Your task to perform on an android device: Open ESPN.com Image 0: 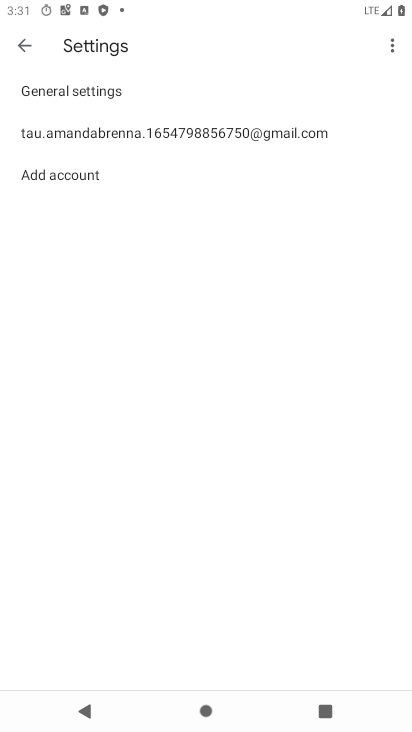
Step 0: press home button
Your task to perform on an android device: Open ESPN.com Image 1: 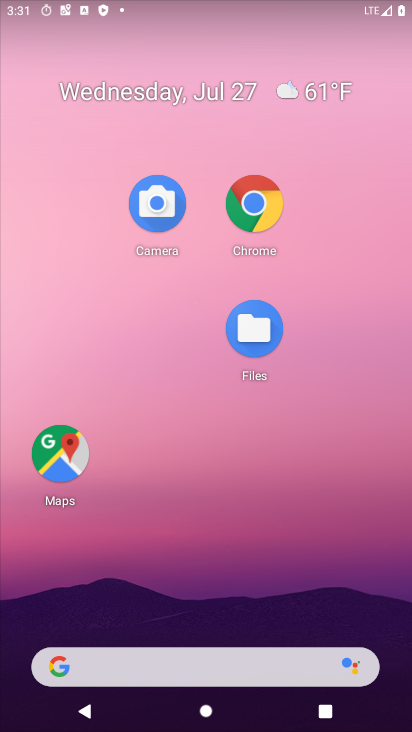
Step 1: click (263, 242)
Your task to perform on an android device: Open ESPN.com Image 2: 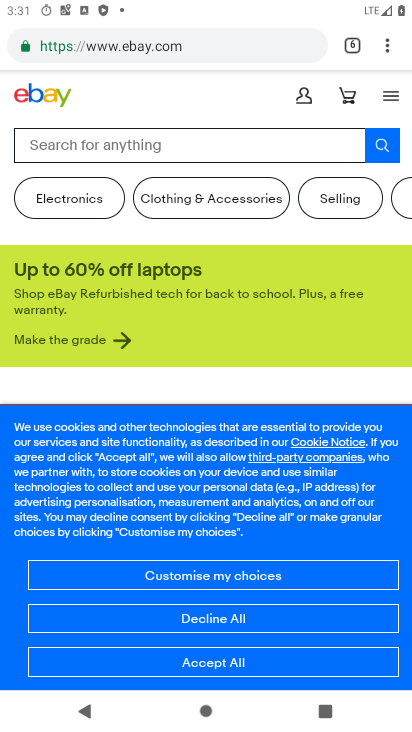
Step 2: click (354, 47)
Your task to perform on an android device: Open ESPN.com Image 3: 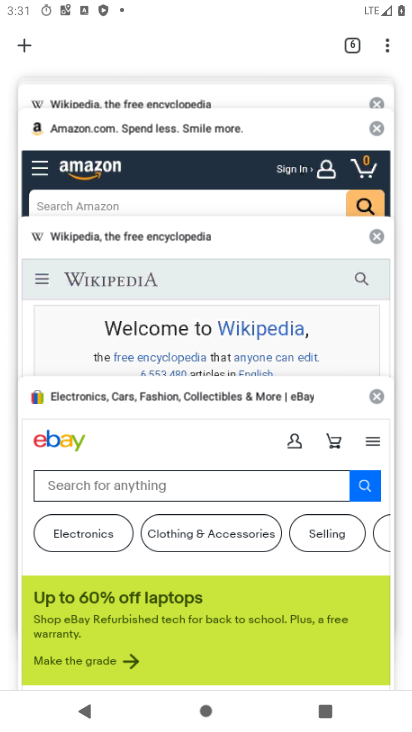
Step 3: click (26, 42)
Your task to perform on an android device: Open ESPN.com Image 4: 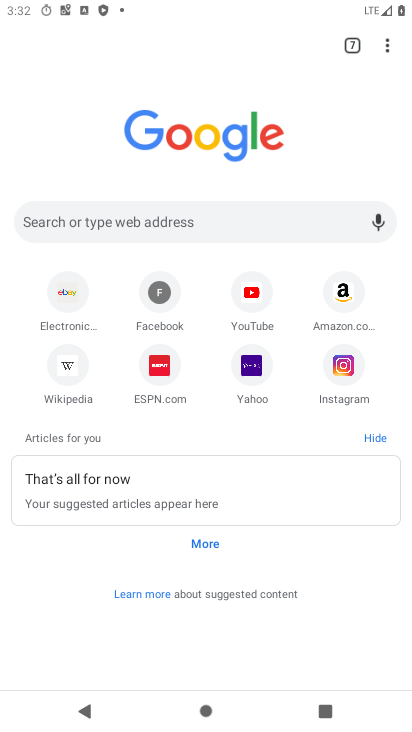
Step 4: click (146, 385)
Your task to perform on an android device: Open ESPN.com Image 5: 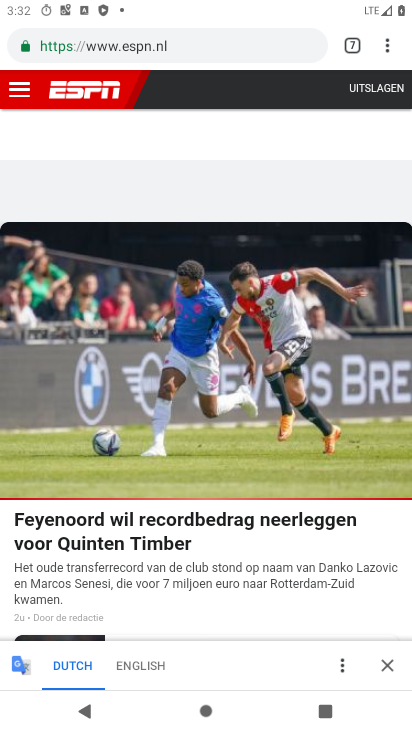
Step 5: task complete